Your task to perform on an android device: make emails show in primary in the gmail app Image 0: 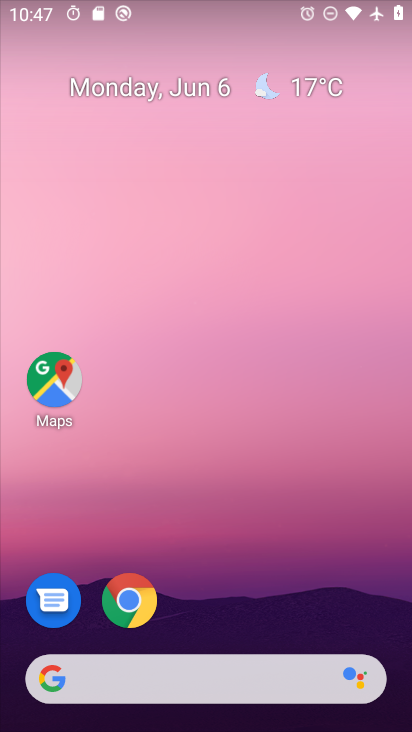
Step 0: drag from (278, 595) to (177, 0)
Your task to perform on an android device: make emails show in primary in the gmail app Image 1: 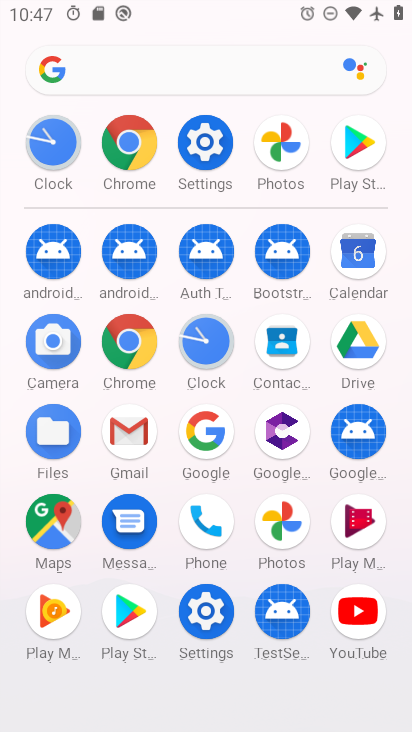
Step 1: click (124, 428)
Your task to perform on an android device: make emails show in primary in the gmail app Image 2: 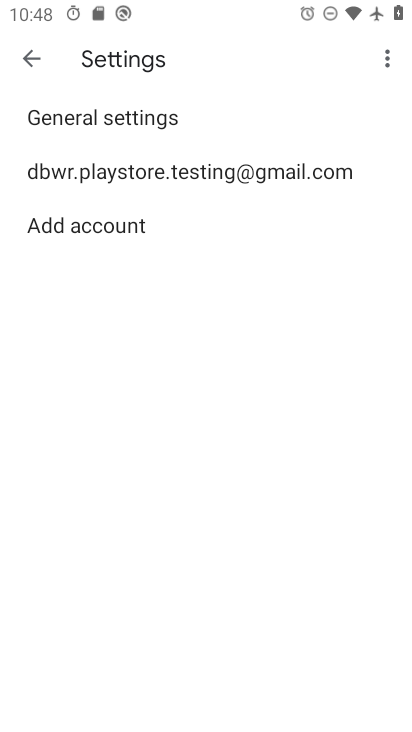
Step 2: click (31, 57)
Your task to perform on an android device: make emails show in primary in the gmail app Image 3: 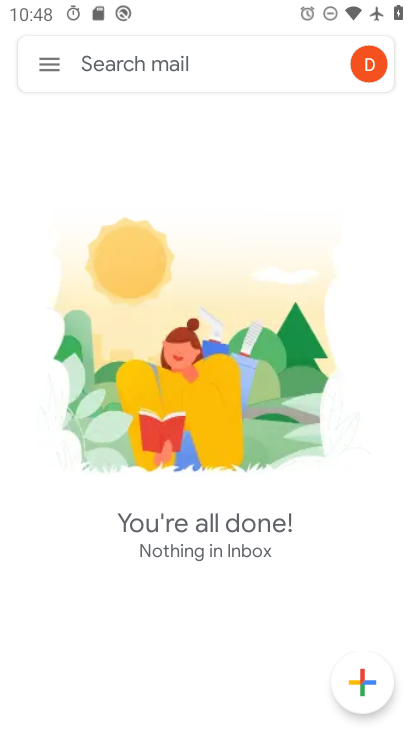
Step 3: click (51, 58)
Your task to perform on an android device: make emails show in primary in the gmail app Image 4: 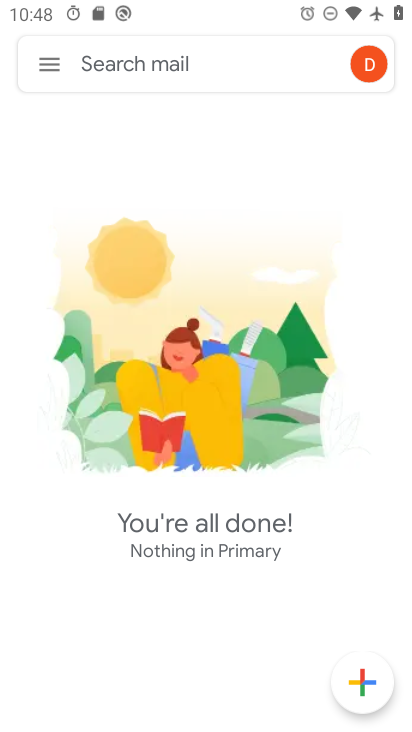
Step 4: click (53, 65)
Your task to perform on an android device: make emails show in primary in the gmail app Image 5: 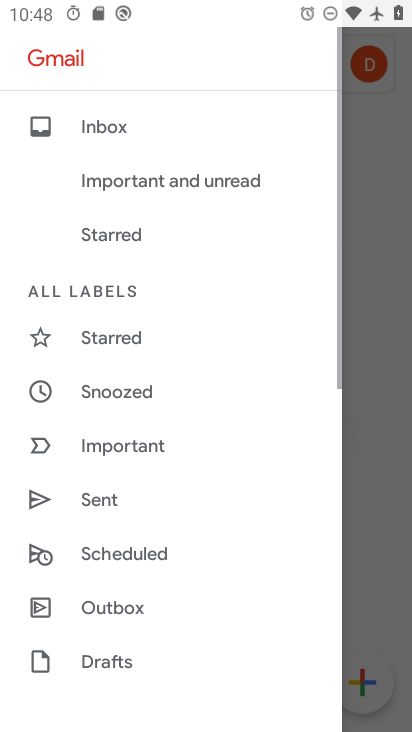
Step 5: drag from (156, 134) to (144, 551)
Your task to perform on an android device: make emails show in primary in the gmail app Image 6: 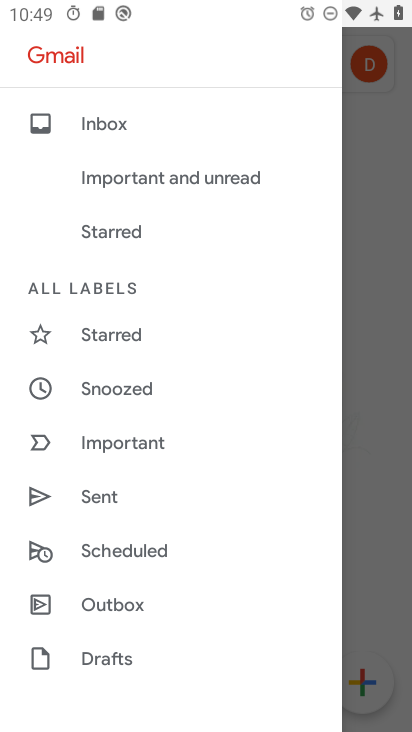
Step 6: click (382, 389)
Your task to perform on an android device: make emails show in primary in the gmail app Image 7: 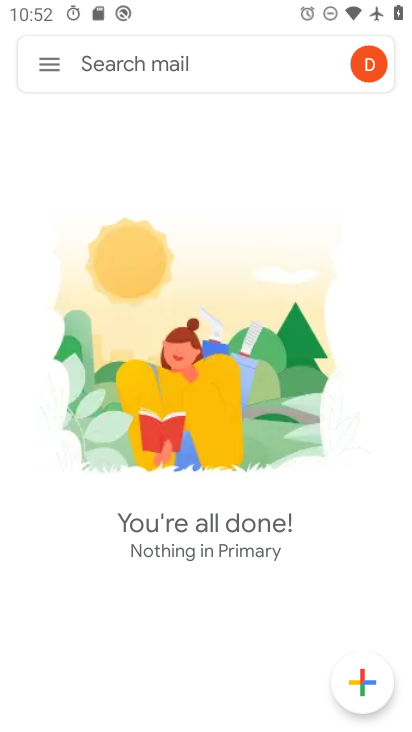
Step 7: task complete